Your task to perform on an android device: Go to sound settings Image 0: 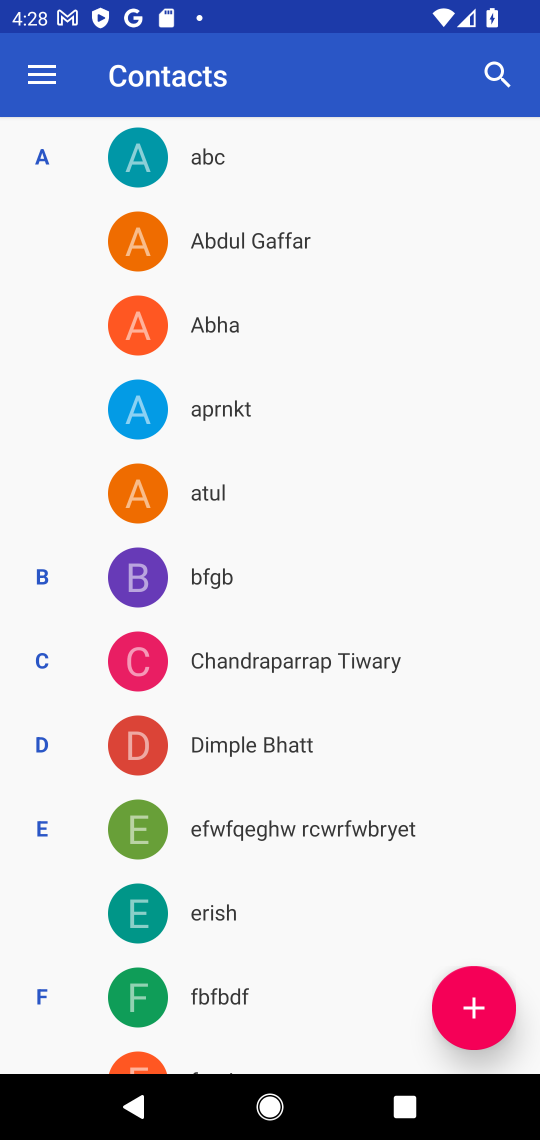
Step 0: press home button
Your task to perform on an android device: Go to sound settings Image 1: 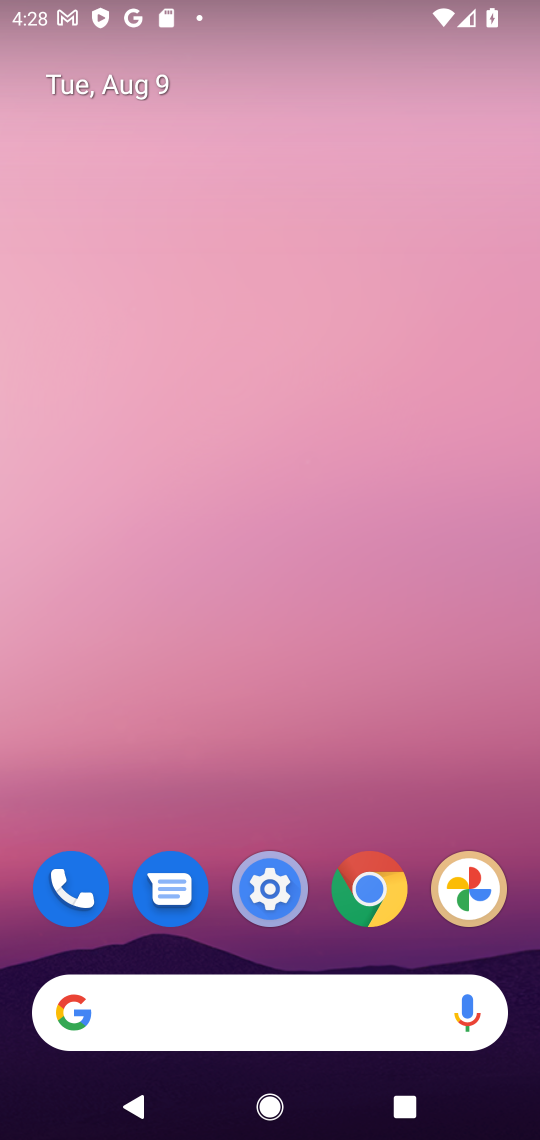
Step 1: drag from (253, 756) to (287, 610)
Your task to perform on an android device: Go to sound settings Image 2: 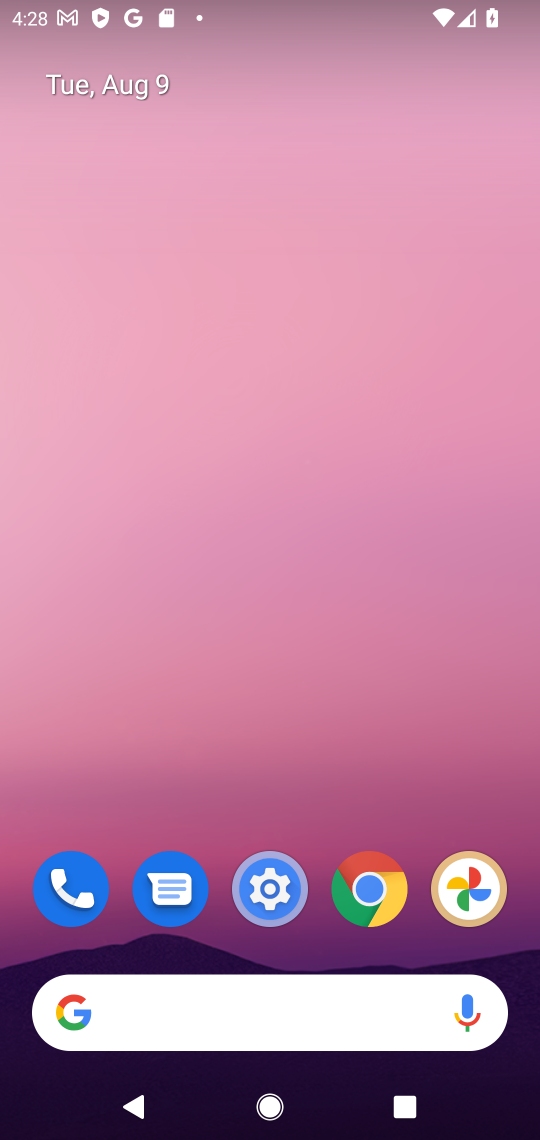
Step 2: click (272, 884)
Your task to perform on an android device: Go to sound settings Image 3: 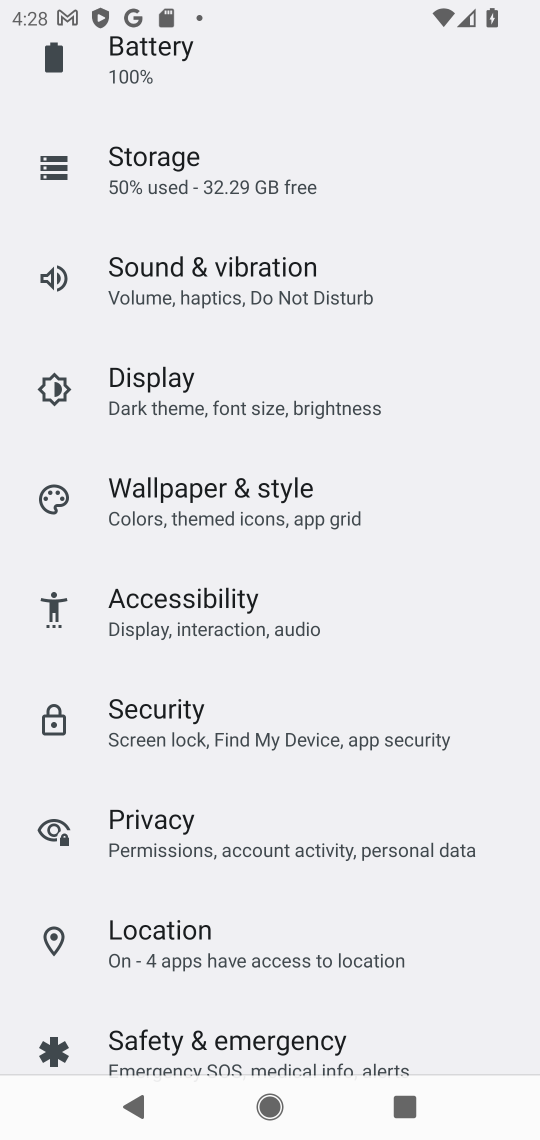
Step 3: click (258, 278)
Your task to perform on an android device: Go to sound settings Image 4: 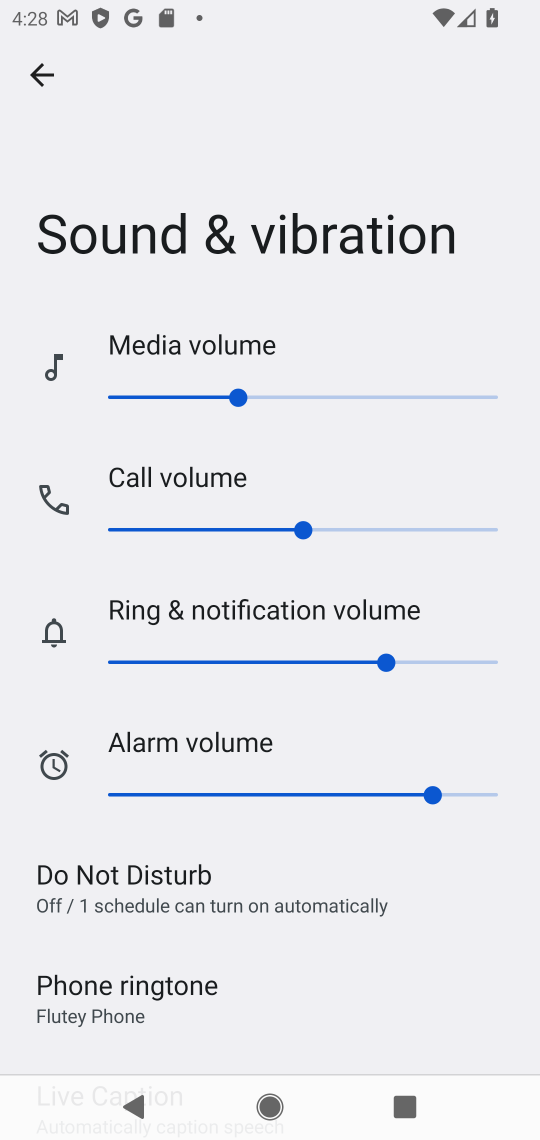
Step 4: task complete